Your task to perform on an android device: find photos in the google photos app Image 0: 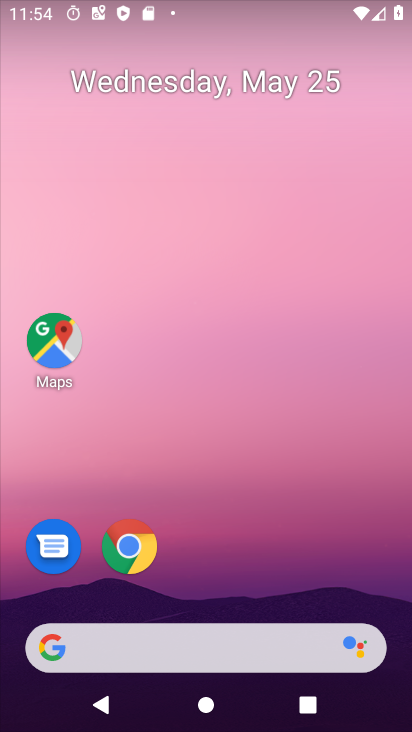
Step 0: drag from (278, 606) to (292, 75)
Your task to perform on an android device: find photos in the google photos app Image 1: 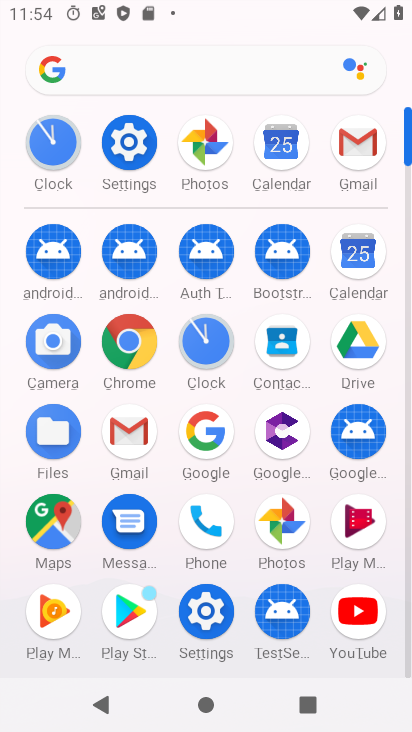
Step 1: click (286, 525)
Your task to perform on an android device: find photos in the google photos app Image 2: 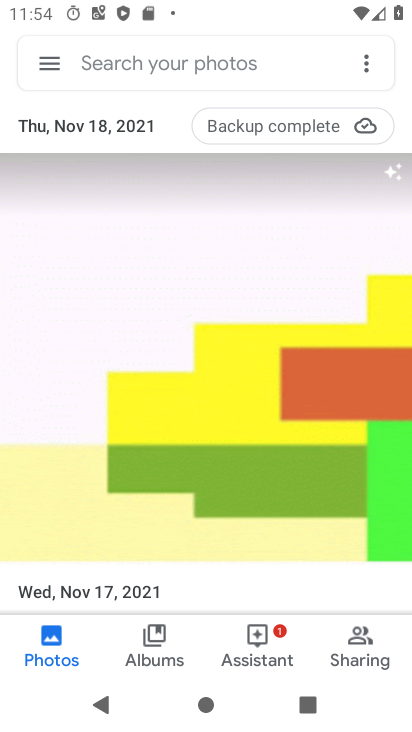
Step 2: task complete